Your task to perform on an android device: delete a single message in the gmail app Image 0: 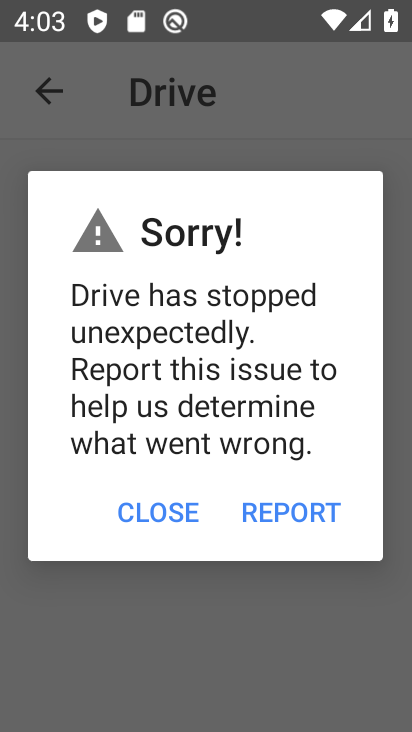
Step 0: press home button
Your task to perform on an android device: delete a single message in the gmail app Image 1: 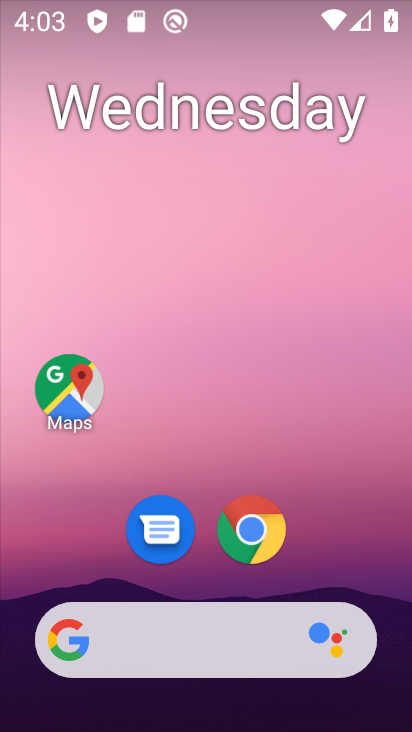
Step 1: drag from (193, 572) to (224, 113)
Your task to perform on an android device: delete a single message in the gmail app Image 2: 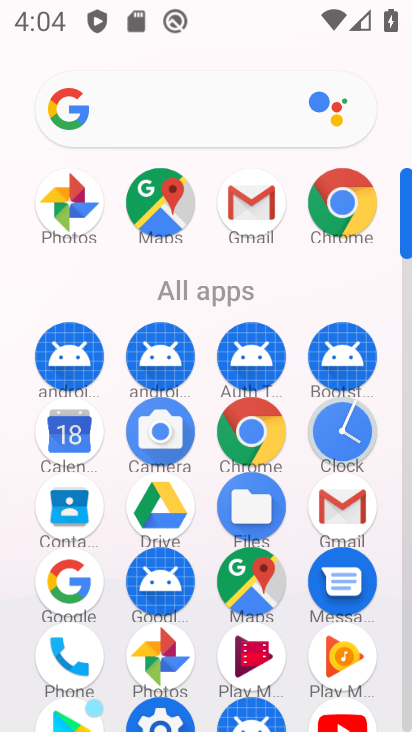
Step 2: click (250, 200)
Your task to perform on an android device: delete a single message in the gmail app Image 3: 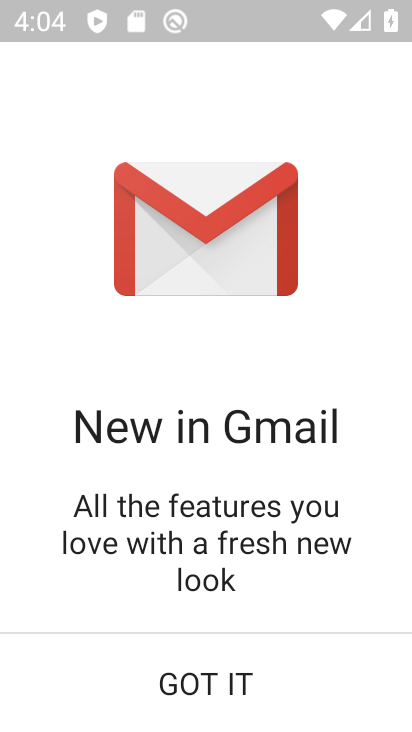
Step 3: click (216, 668)
Your task to perform on an android device: delete a single message in the gmail app Image 4: 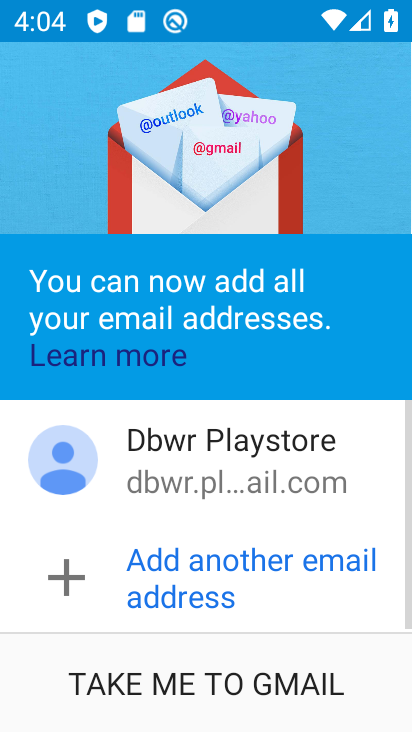
Step 4: click (220, 704)
Your task to perform on an android device: delete a single message in the gmail app Image 5: 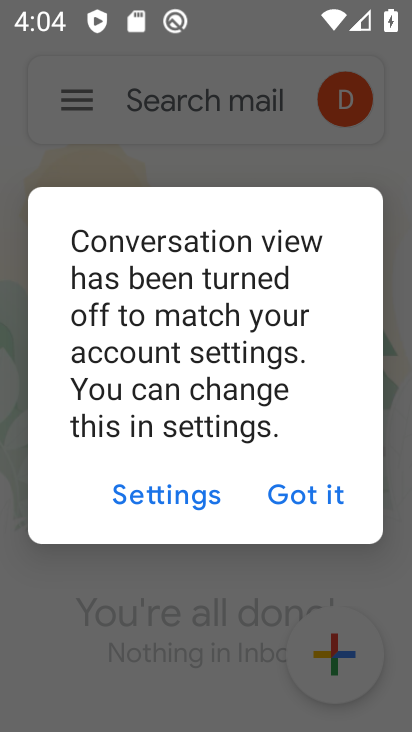
Step 5: click (297, 503)
Your task to perform on an android device: delete a single message in the gmail app Image 6: 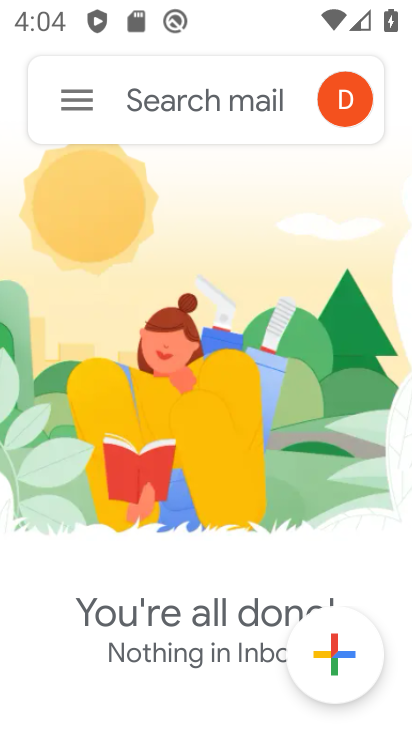
Step 6: click (77, 90)
Your task to perform on an android device: delete a single message in the gmail app Image 7: 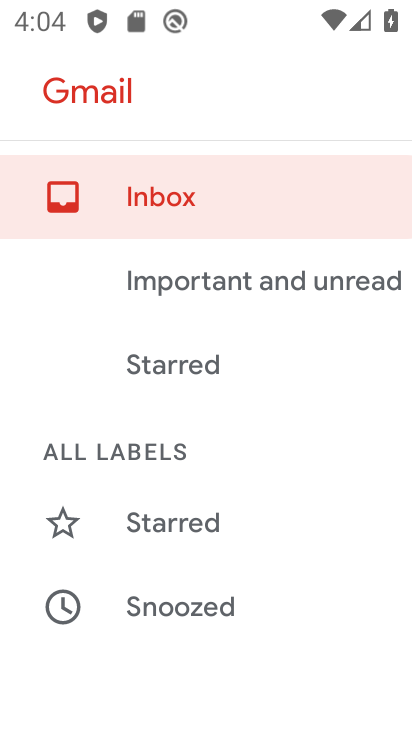
Step 7: drag from (151, 596) to (250, 158)
Your task to perform on an android device: delete a single message in the gmail app Image 8: 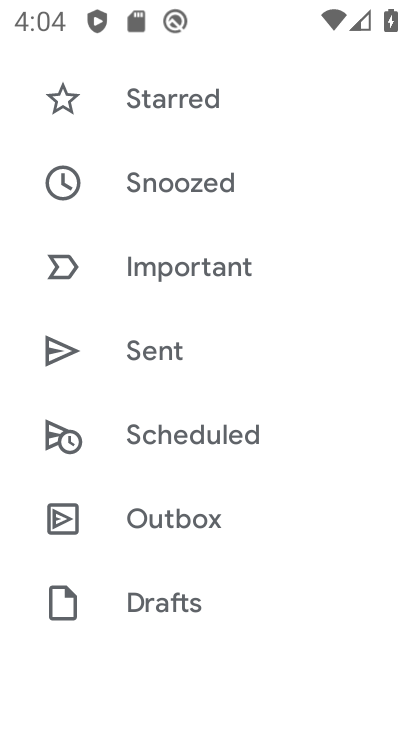
Step 8: drag from (188, 558) to (298, 113)
Your task to perform on an android device: delete a single message in the gmail app Image 9: 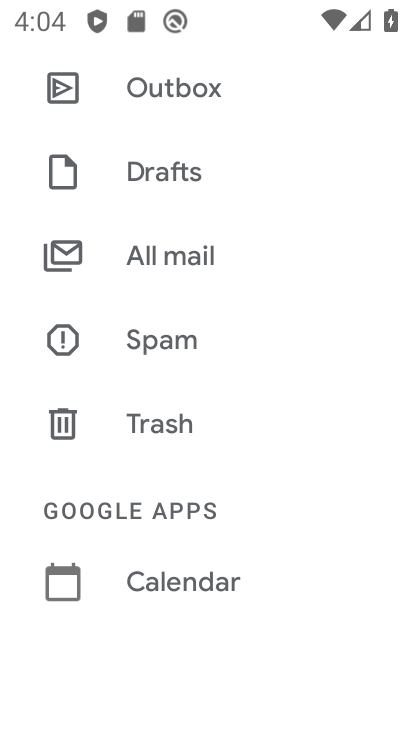
Step 9: click (175, 255)
Your task to perform on an android device: delete a single message in the gmail app Image 10: 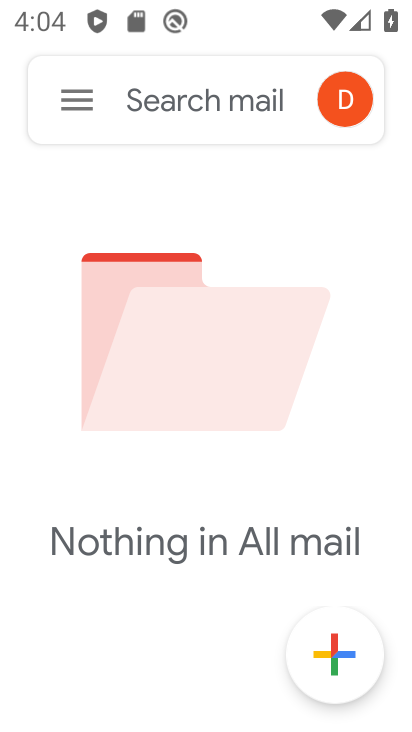
Step 10: task complete